Your task to perform on an android device: Open location settings Image 0: 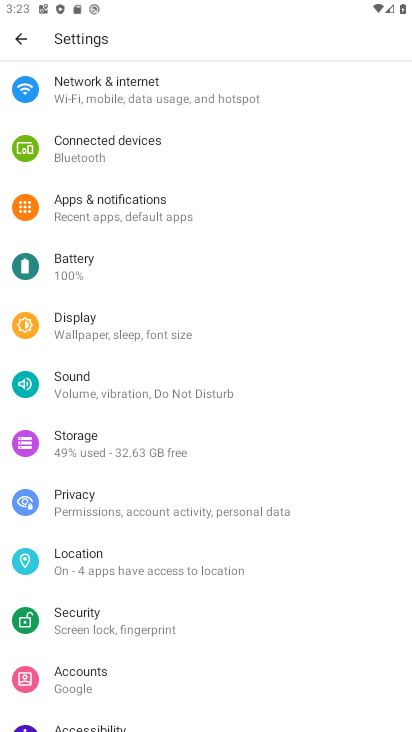
Step 0: click (73, 553)
Your task to perform on an android device: Open location settings Image 1: 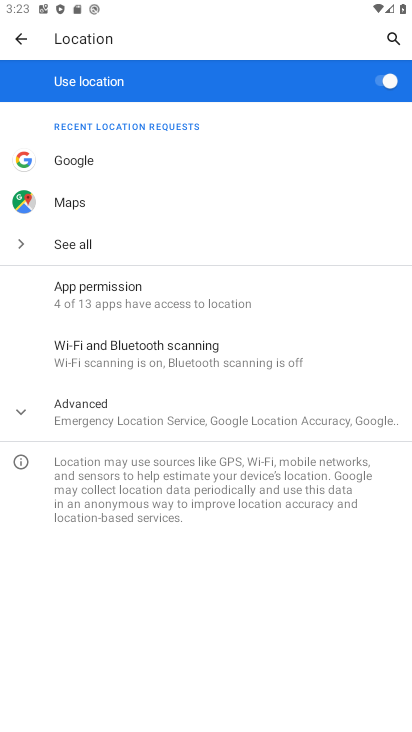
Step 1: click (75, 412)
Your task to perform on an android device: Open location settings Image 2: 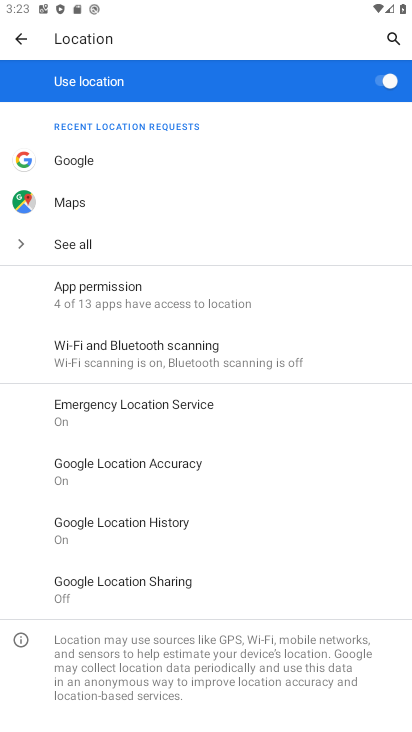
Step 2: task complete